Your task to perform on an android device: add a label to a message in the gmail app Image 0: 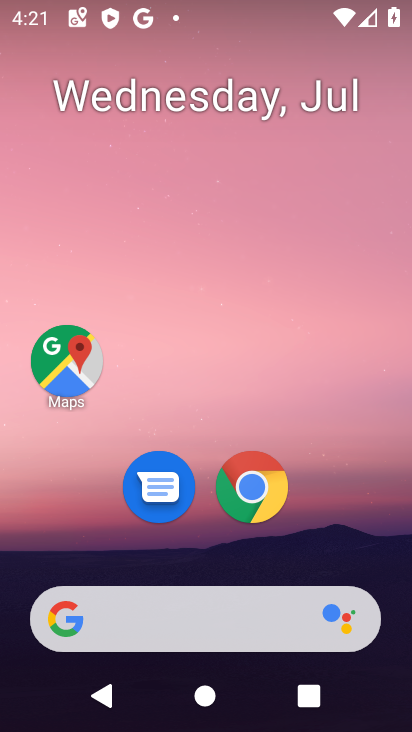
Step 0: drag from (186, 582) to (294, 34)
Your task to perform on an android device: add a label to a message in the gmail app Image 1: 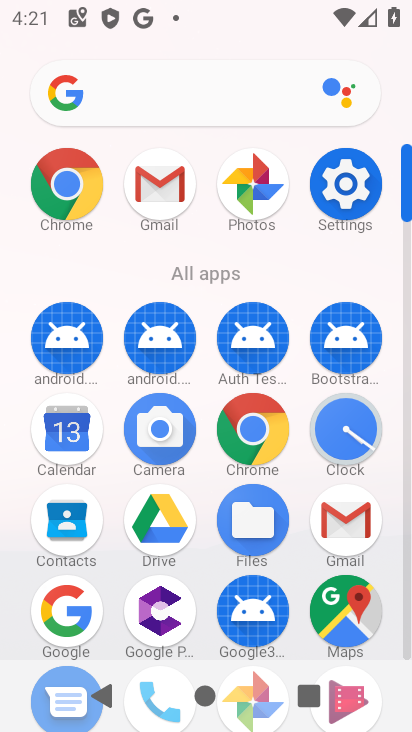
Step 1: click (165, 193)
Your task to perform on an android device: add a label to a message in the gmail app Image 2: 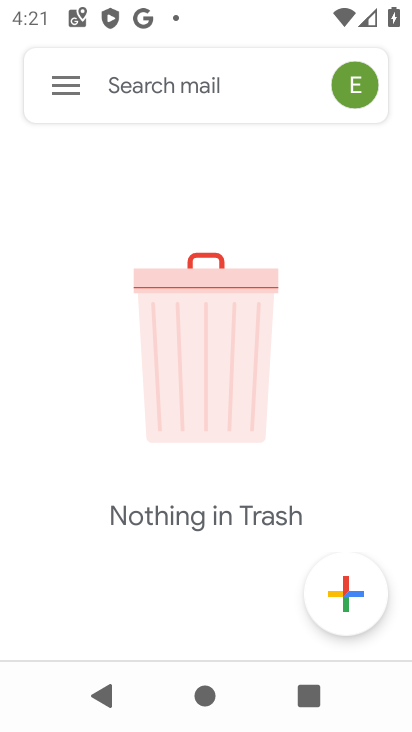
Step 2: click (65, 84)
Your task to perform on an android device: add a label to a message in the gmail app Image 3: 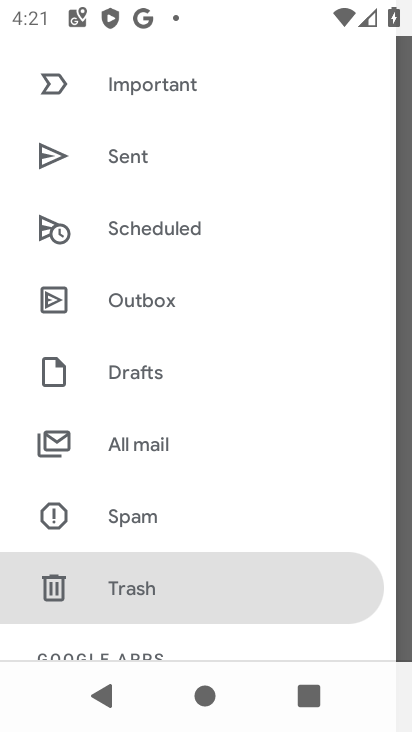
Step 3: click (146, 446)
Your task to perform on an android device: add a label to a message in the gmail app Image 4: 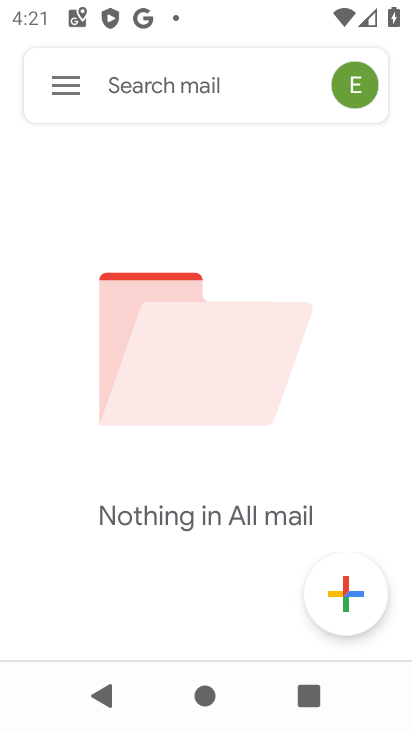
Step 4: task complete